Your task to perform on an android device: Show me recent news Image 0: 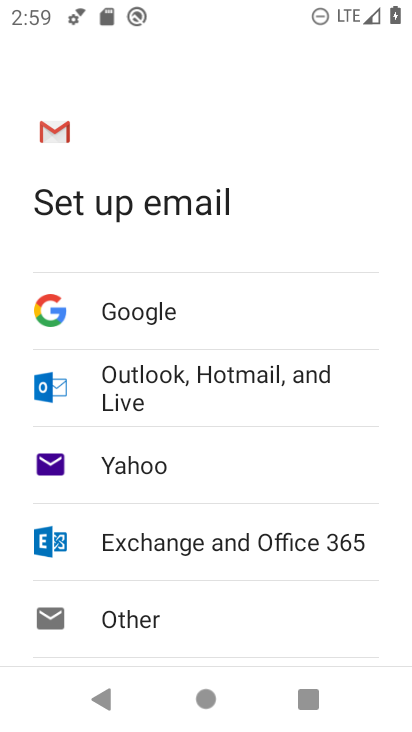
Step 0: press home button
Your task to perform on an android device: Show me recent news Image 1: 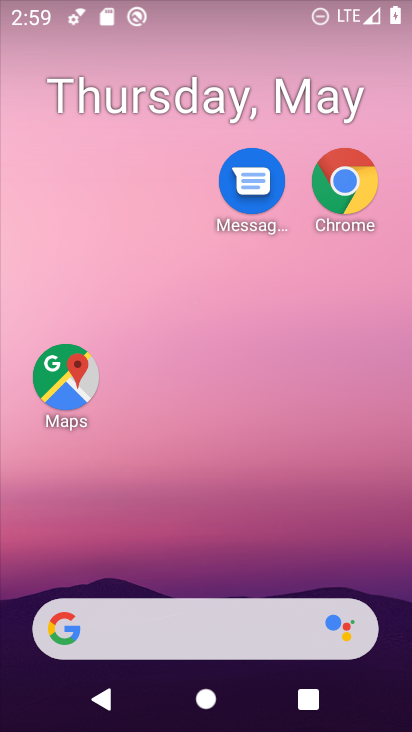
Step 1: drag from (276, 618) to (300, 74)
Your task to perform on an android device: Show me recent news Image 2: 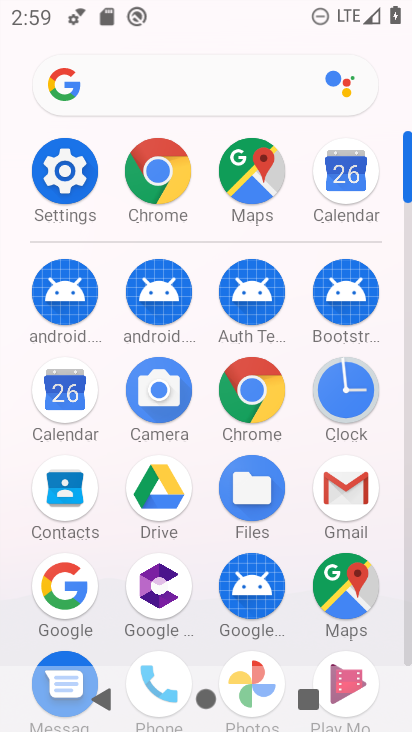
Step 2: click (244, 378)
Your task to perform on an android device: Show me recent news Image 3: 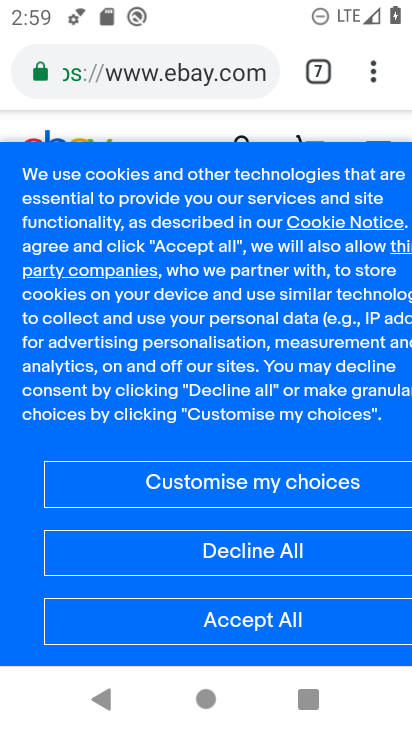
Step 3: click (187, 67)
Your task to perform on an android device: Show me recent news Image 4: 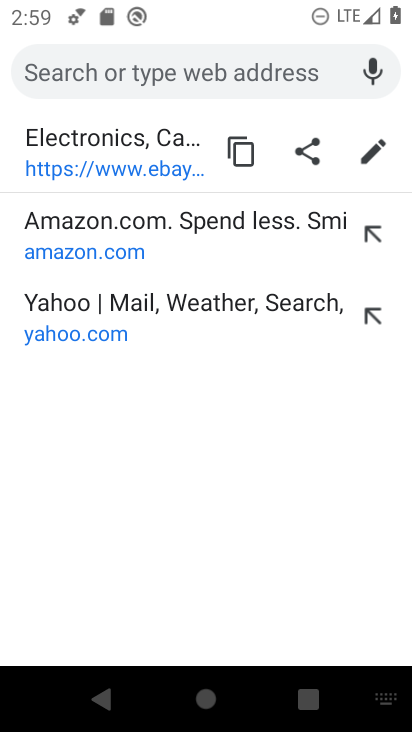
Step 4: type "recent news"
Your task to perform on an android device: Show me recent news Image 5: 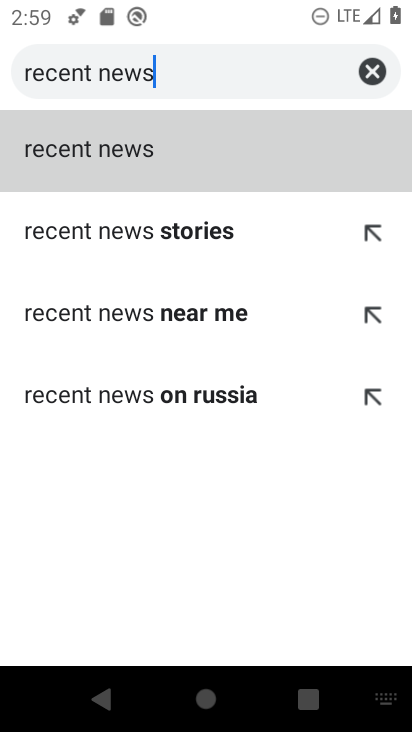
Step 5: click (182, 163)
Your task to perform on an android device: Show me recent news Image 6: 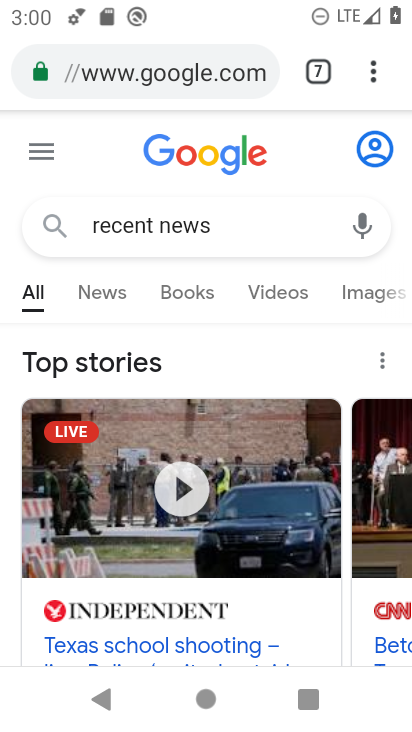
Step 6: task complete